Your task to perform on an android device: Open settings on Google Maps Image 0: 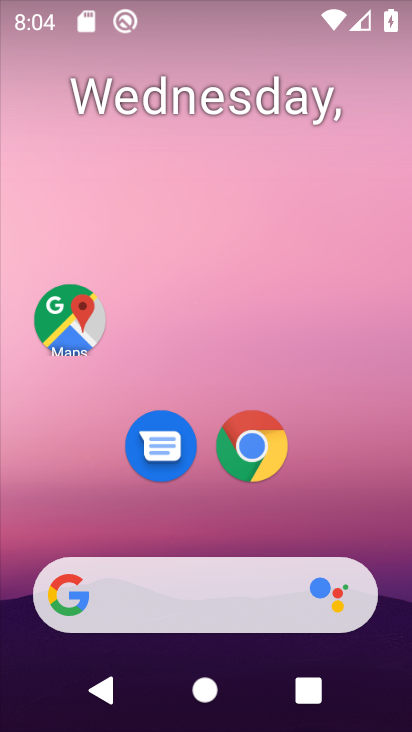
Step 0: click (70, 320)
Your task to perform on an android device: Open settings on Google Maps Image 1: 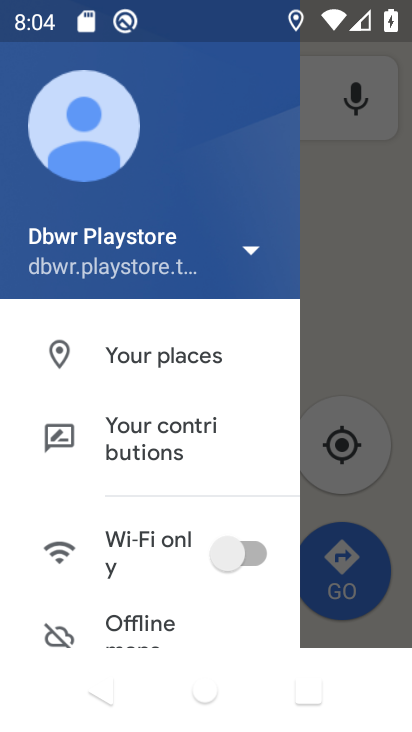
Step 1: drag from (143, 588) to (165, 252)
Your task to perform on an android device: Open settings on Google Maps Image 2: 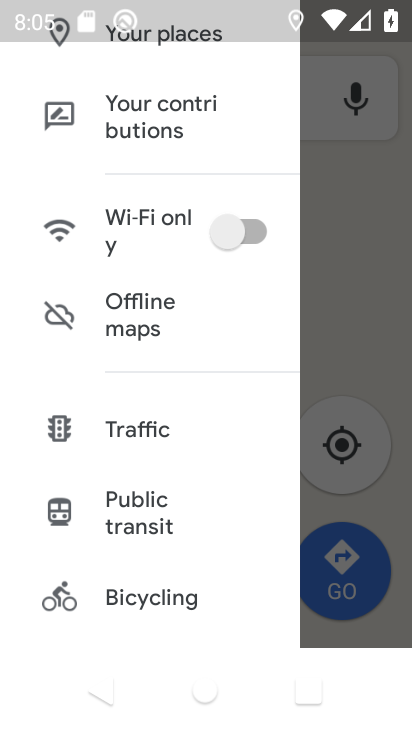
Step 2: drag from (187, 590) to (189, 146)
Your task to perform on an android device: Open settings on Google Maps Image 3: 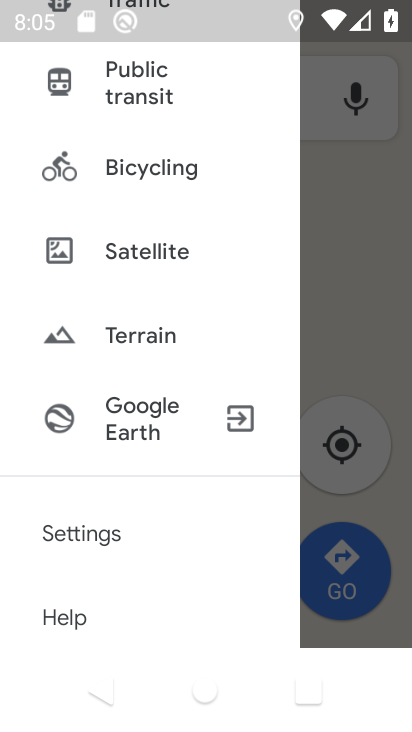
Step 3: drag from (169, 572) to (176, 198)
Your task to perform on an android device: Open settings on Google Maps Image 4: 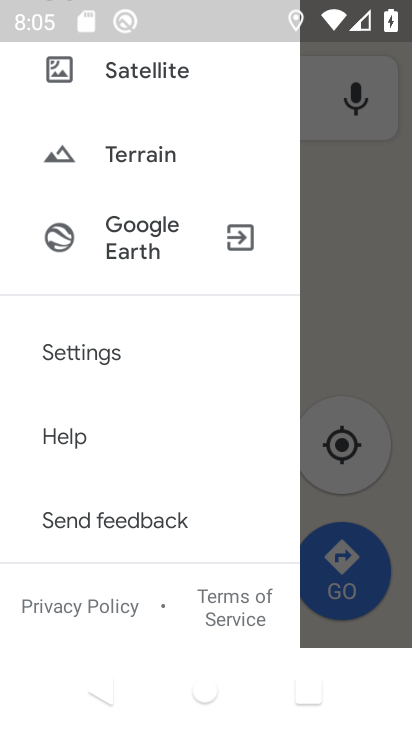
Step 4: click (100, 343)
Your task to perform on an android device: Open settings on Google Maps Image 5: 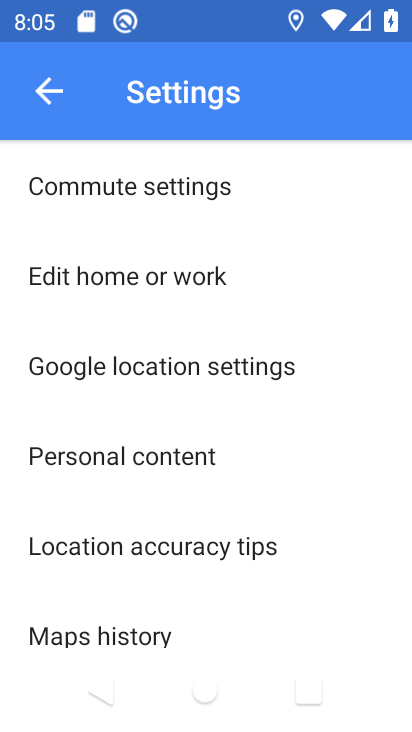
Step 5: task complete